Your task to perform on an android device: change the clock style Image 0: 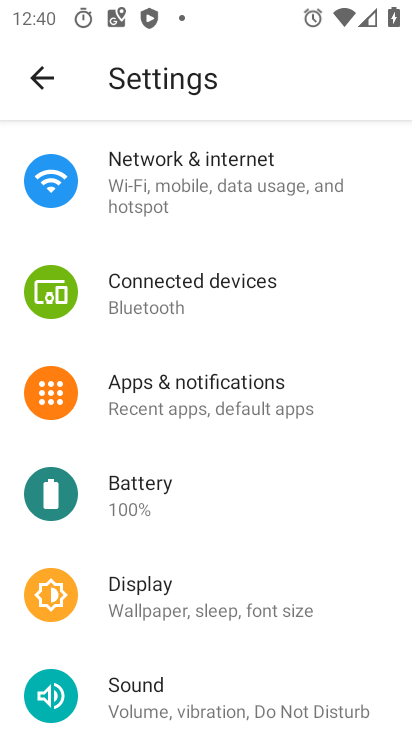
Step 0: press home button
Your task to perform on an android device: change the clock style Image 1: 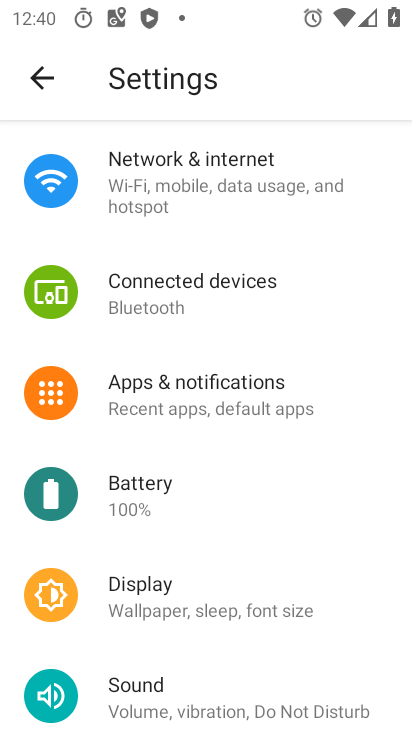
Step 1: press home button
Your task to perform on an android device: change the clock style Image 2: 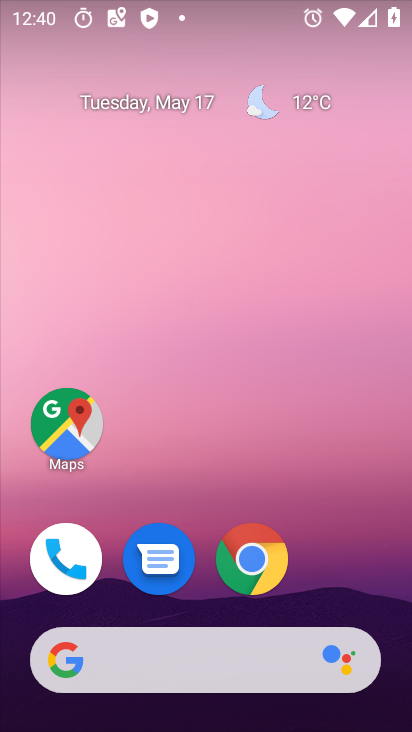
Step 2: drag from (361, 558) to (292, 114)
Your task to perform on an android device: change the clock style Image 3: 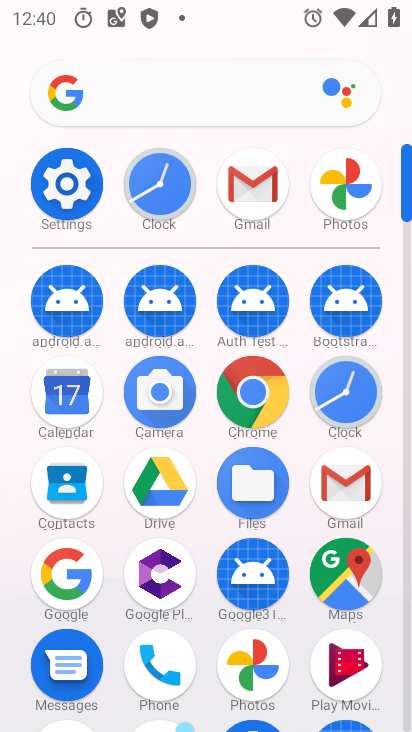
Step 3: click (358, 395)
Your task to perform on an android device: change the clock style Image 4: 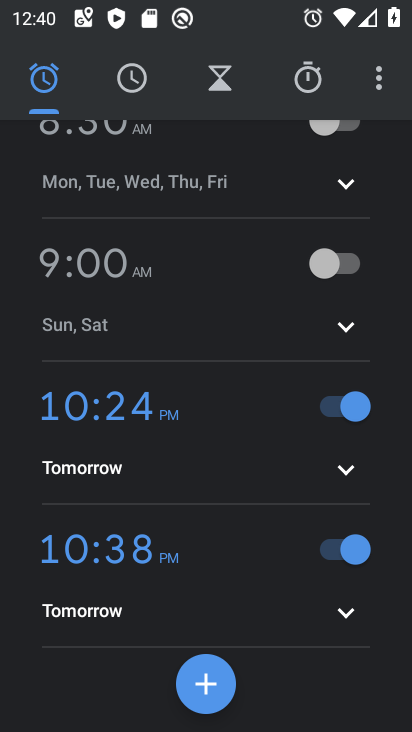
Step 4: click (377, 73)
Your task to perform on an android device: change the clock style Image 5: 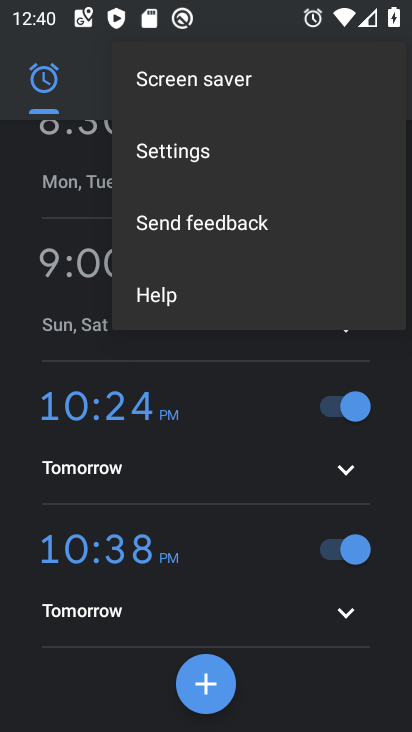
Step 5: click (209, 150)
Your task to perform on an android device: change the clock style Image 6: 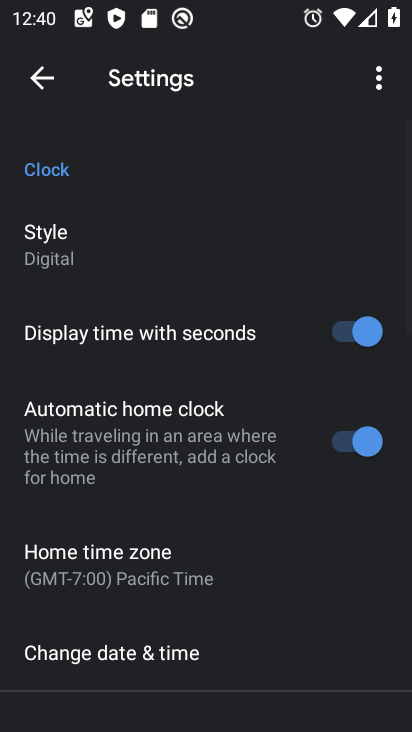
Step 6: click (90, 248)
Your task to perform on an android device: change the clock style Image 7: 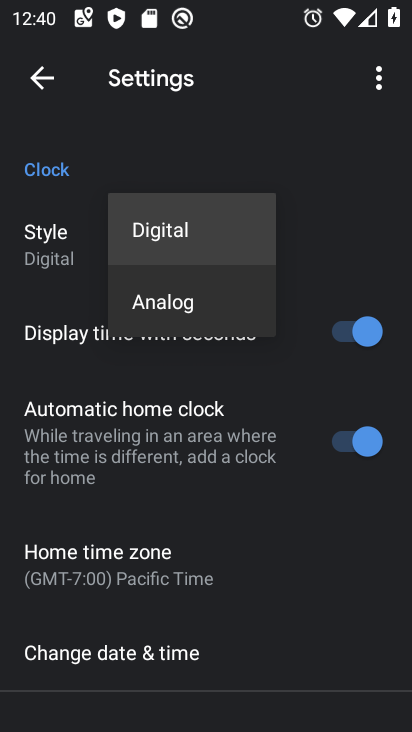
Step 7: click (172, 306)
Your task to perform on an android device: change the clock style Image 8: 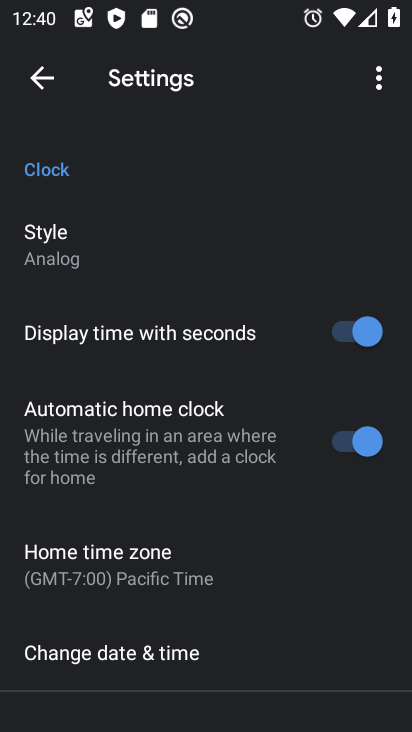
Step 8: task complete